Your task to perform on an android device: Go to calendar. Show me events next week Image 0: 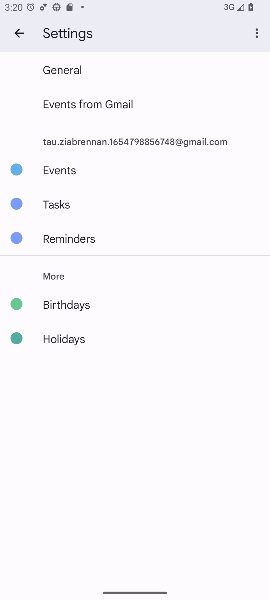
Step 0: press home button
Your task to perform on an android device: Go to calendar. Show me events next week Image 1: 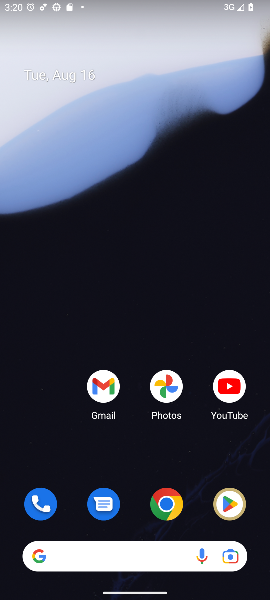
Step 1: drag from (138, 459) to (140, 110)
Your task to perform on an android device: Go to calendar. Show me events next week Image 2: 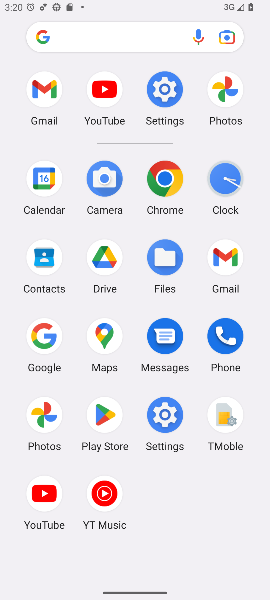
Step 2: click (40, 180)
Your task to perform on an android device: Go to calendar. Show me events next week Image 3: 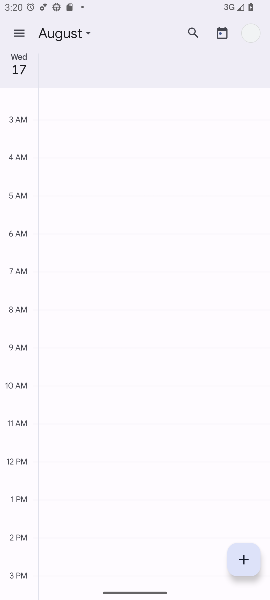
Step 3: click (17, 31)
Your task to perform on an android device: Go to calendar. Show me events next week Image 4: 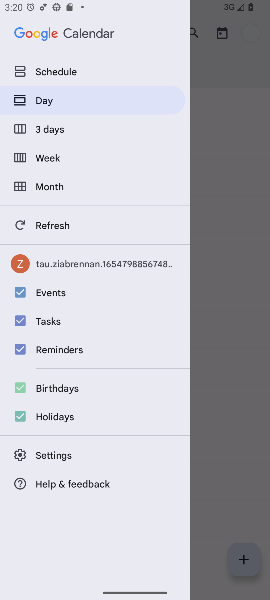
Step 4: click (49, 155)
Your task to perform on an android device: Go to calendar. Show me events next week Image 5: 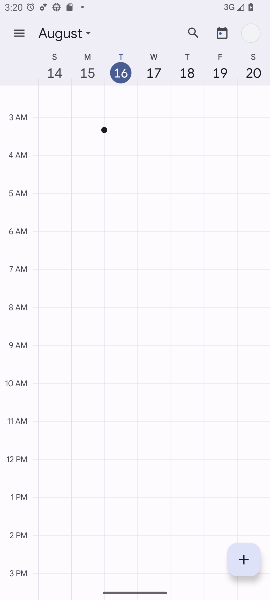
Step 5: click (85, 33)
Your task to perform on an android device: Go to calendar. Show me events next week Image 6: 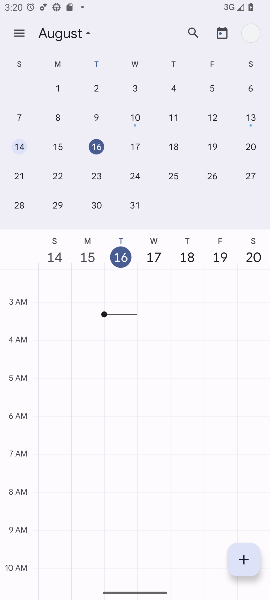
Step 6: click (92, 168)
Your task to perform on an android device: Go to calendar. Show me events next week Image 7: 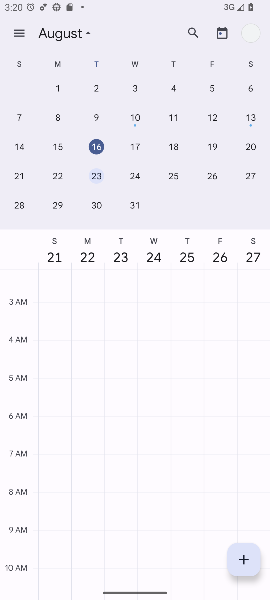
Step 7: click (96, 178)
Your task to perform on an android device: Go to calendar. Show me events next week Image 8: 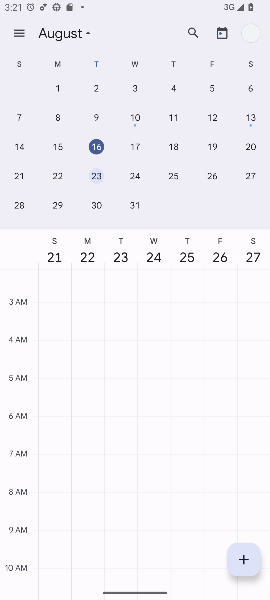
Step 8: click (101, 144)
Your task to perform on an android device: Go to calendar. Show me events next week Image 9: 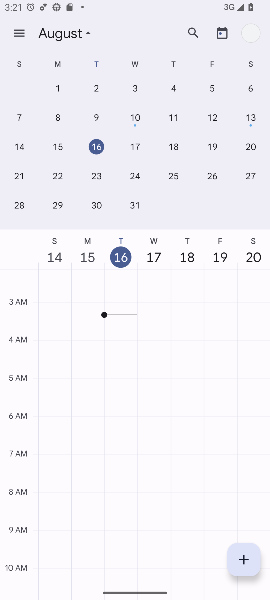
Step 9: click (95, 174)
Your task to perform on an android device: Go to calendar. Show me events next week Image 10: 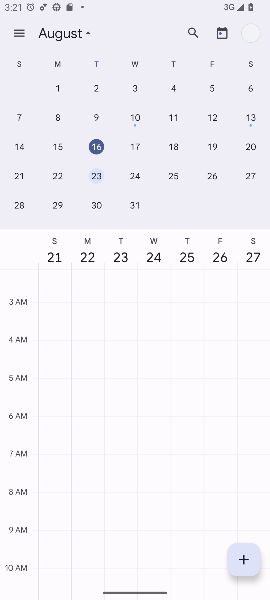
Step 10: task complete